Your task to perform on an android device: Open Google Chrome and click the shortcut for Amazon.com Image 0: 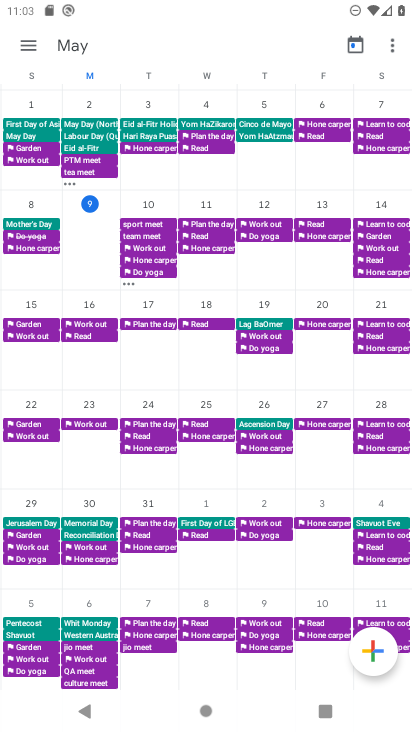
Step 0: press home button
Your task to perform on an android device: Open Google Chrome and click the shortcut for Amazon.com Image 1: 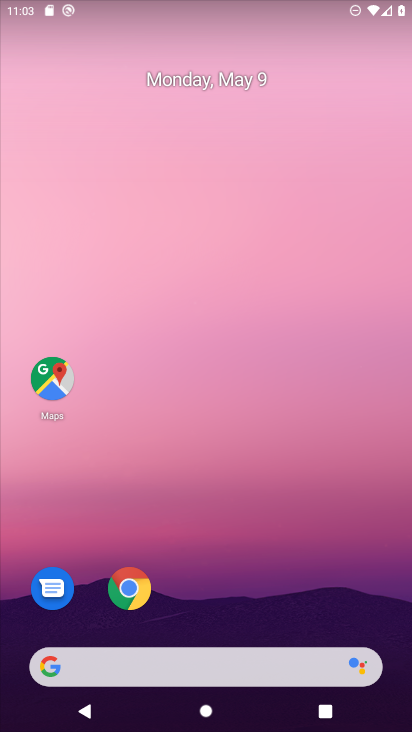
Step 1: click (135, 593)
Your task to perform on an android device: Open Google Chrome and click the shortcut for Amazon.com Image 2: 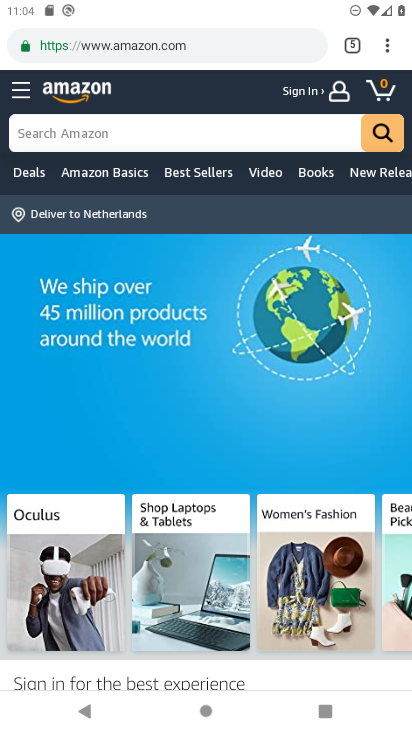
Step 2: task complete